Your task to perform on an android device: Do I have any events this weekend? Image 0: 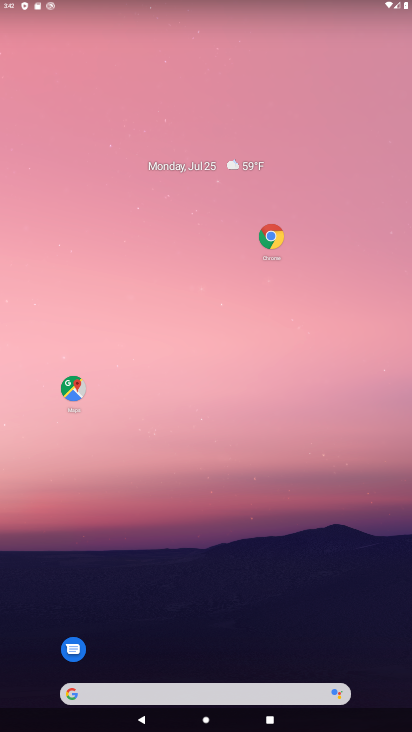
Step 0: drag from (219, 661) to (287, 250)
Your task to perform on an android device: Do I have any events this weekend? Image 1: 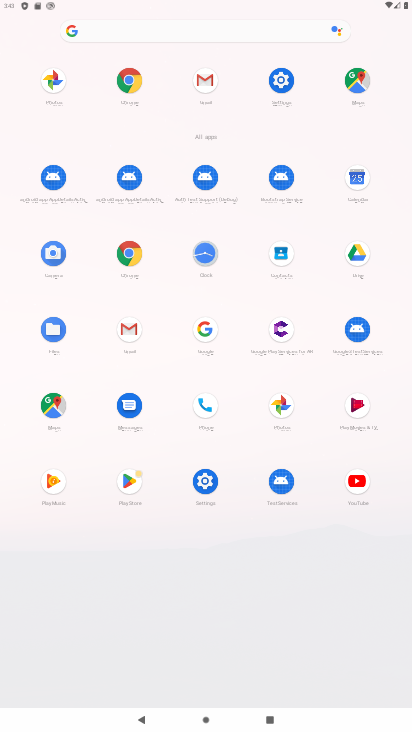
Step 1: click (353, 187)
Your task to perform on an android device: Do I have any events this weekend? Image 2: 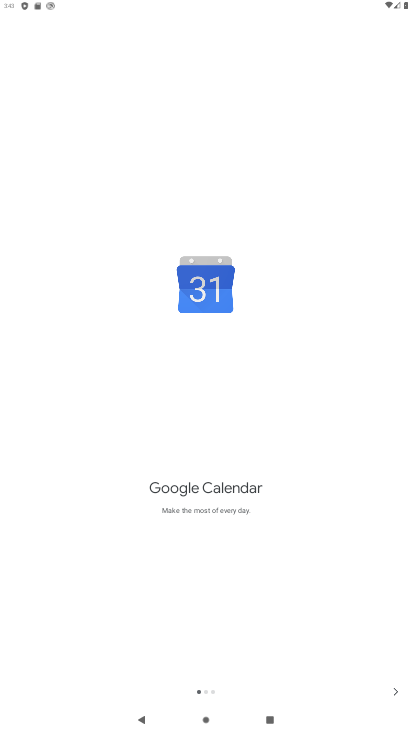
Step 2: click (395, 692)
Your task to perform on an android device: Do I have any events this weekend? Image 3: 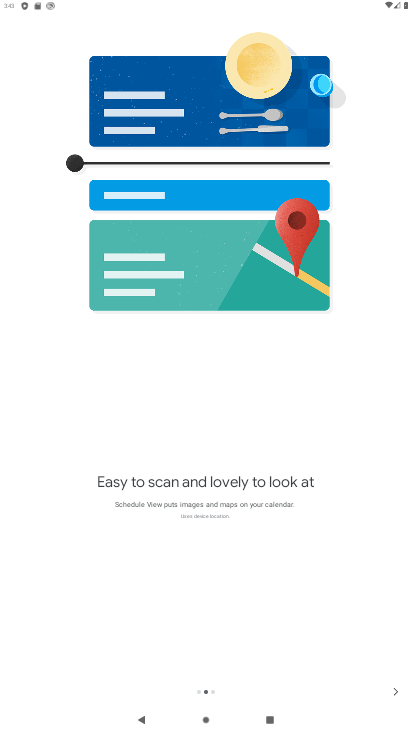
Step 3: click (392, 694)
Your task to perform on an android device: Do I have any events this weekend? Image 4: 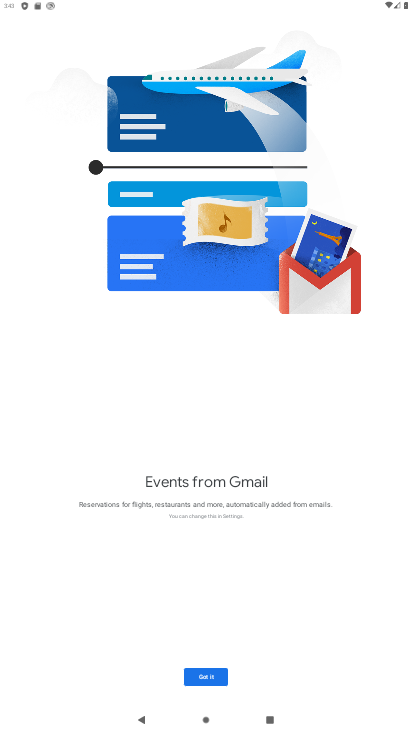
Step 4: click (206, 678)
Your task to perform on an android device: Do I have any events this weekend? Image 5: 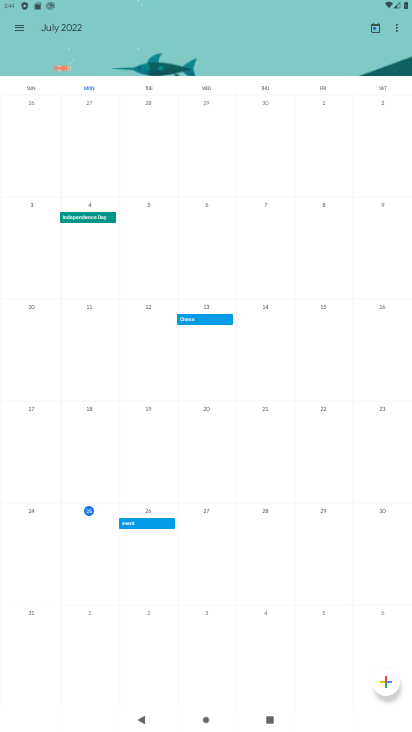
Step 5: click (77, 525)
Your task to perform on an android device: Do I have any events this weekend? Image 6: 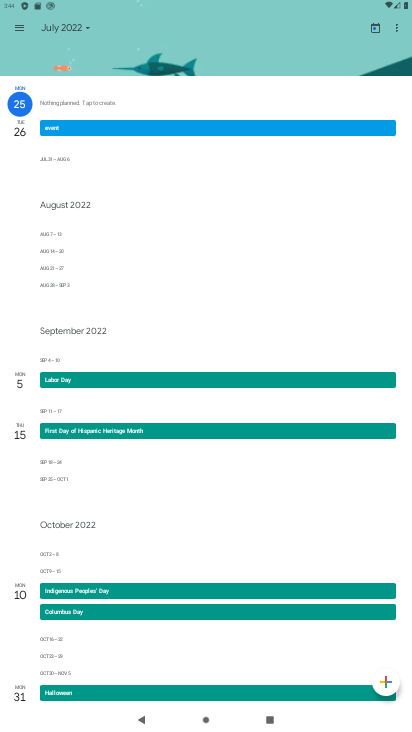
Step 6: task complete